Your task to perform on an android device: Set the phone to "Do not disturb". Image 0: 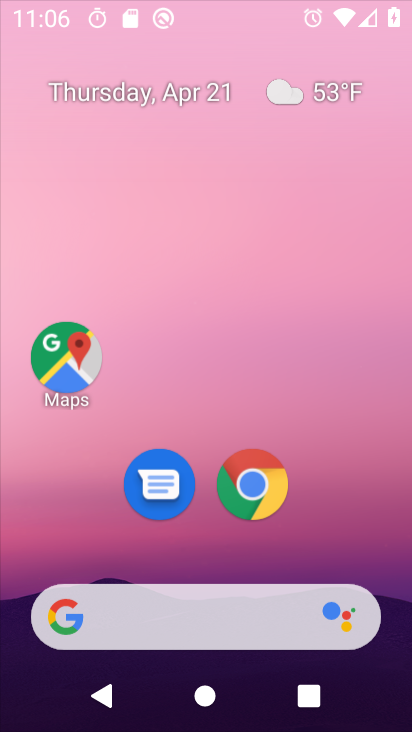
Step 0: click (260, 472)
Your task to perform on an android device: Set the phone to "Do not disturb". Image 1: 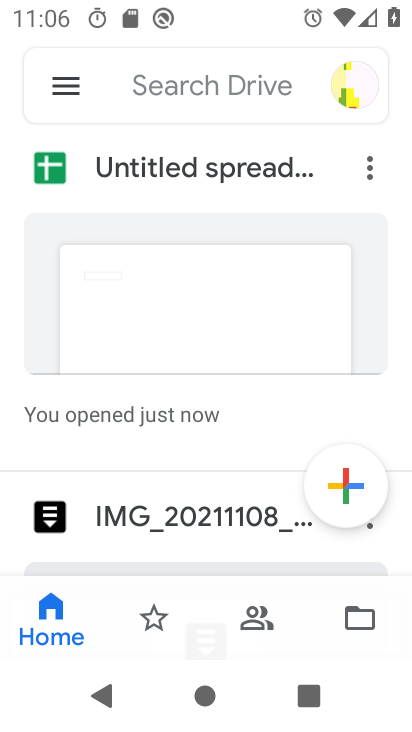
Step 1: press home button
Your task to perform on an android device: Set the phone to "Do not disturb". Image 2: 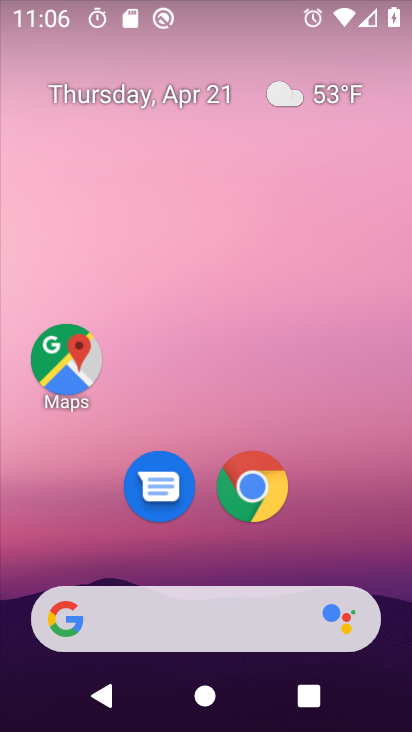
Step 2: click (324, 208)
Your task to perform on an android device: Set the phone to "Do not disturb". Image 3: 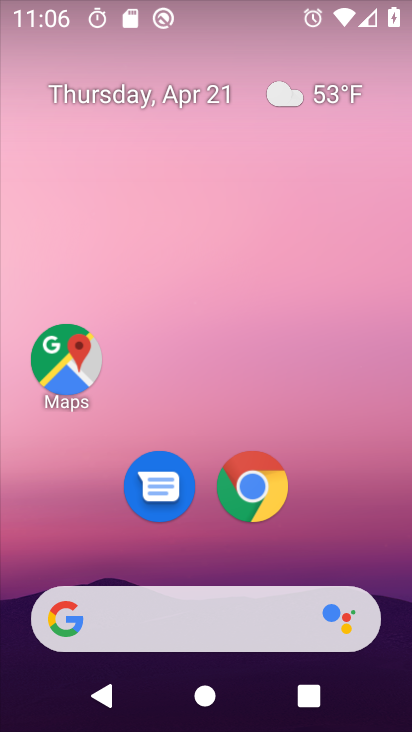
Step 3: drag from (384, 398) to (360, 156)
Your task to perform on an android device: Set the phone to "Do not disturb". Image 4: 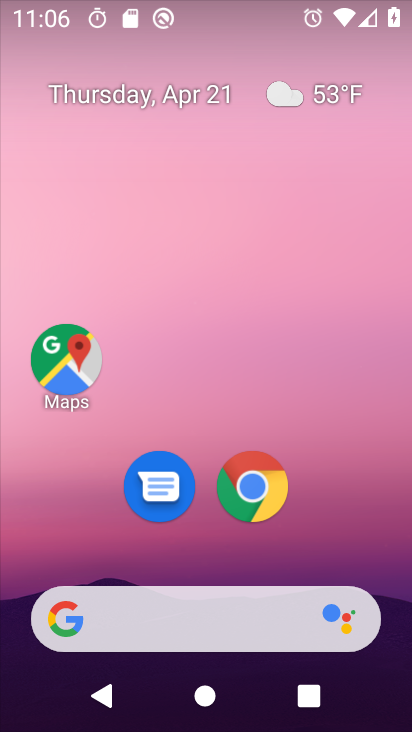
Step 4: drag from (388, 199) to (387, 131)
Your task to perform on an android device: Set the phone to "Do not disturb". Image 5: 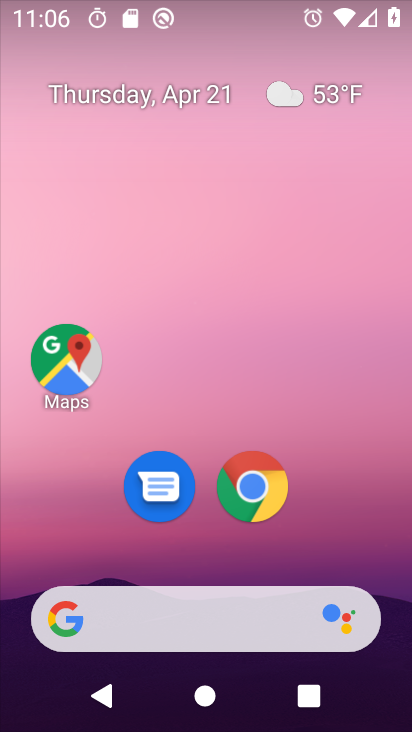
Step 5: drag from (360, 338) to (325, 76)
Your task to perform on an android device: Set the phone to "Do not disturb". Image 6: 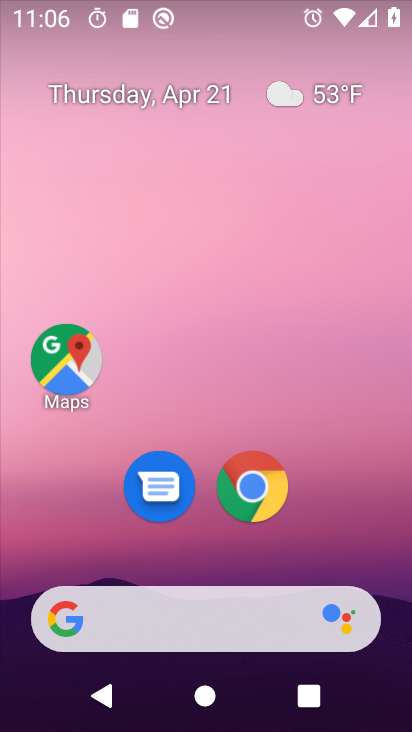
Step 6: click (350, 103)
Your task to perform on an android device: Set the phone to "Do not disturb". Image 7: 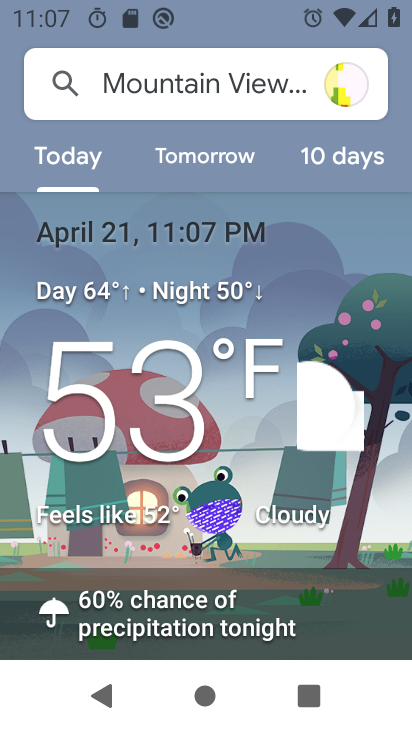
Step 7: press back button
Your task to perform on an android device: Set the phone to "Do not disturb". Image 8: 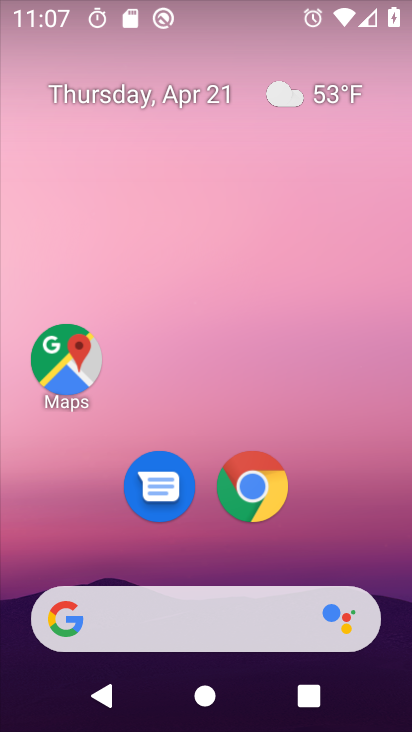
Step 8: drag from (391, 588) to (371, 91)
Your task to perform on an android device: Set the phone to "Do not disturb". Image 9: 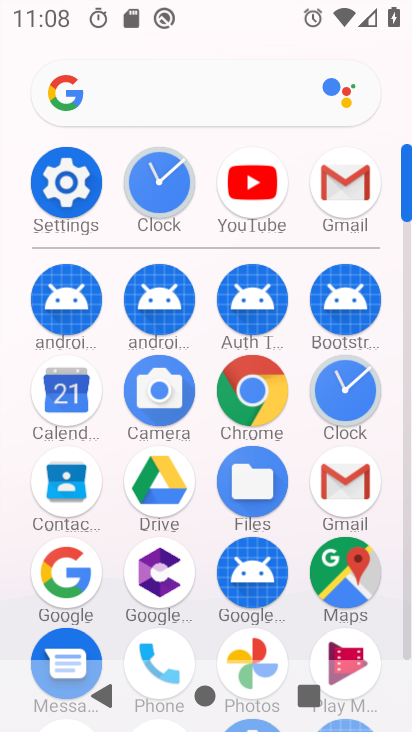
Step 9: click (55, 186)
Your task to perform on an android device: Set the phone to "Do not disturb". Image 10: 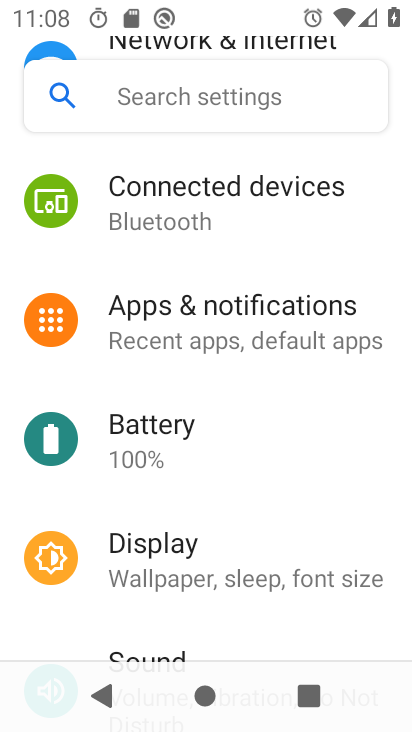
Step 10: drag from (265, 459) to (260, 376)
Your task to perform on an android device: Set the phone to "Do not disturb". Image 11: 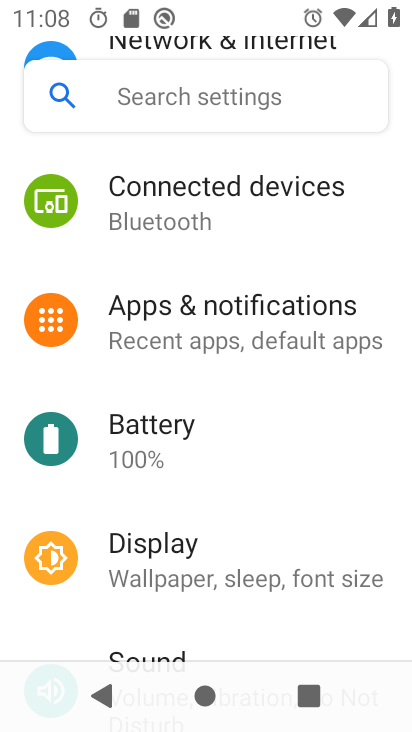
Step 11: drag from (256, 498) to (243, 228)
Your task to perform on an android device: Set the phone to "Do not disturb". Image 12: 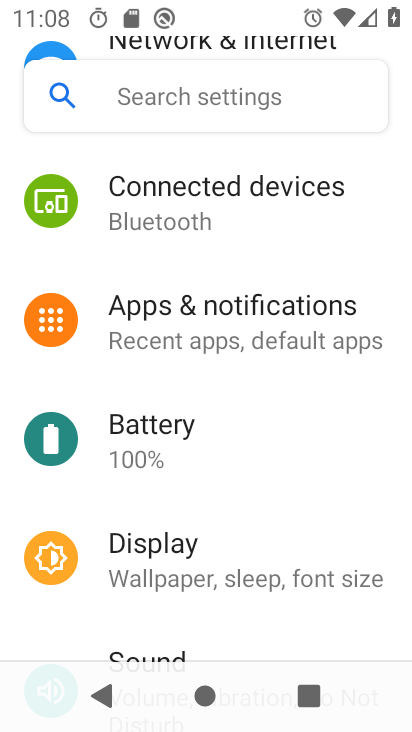
Step 12: drag from (271, 612) to (279, 278)
Your task to perform on an android device: Set the phone to "Do not disturb". Image 13: 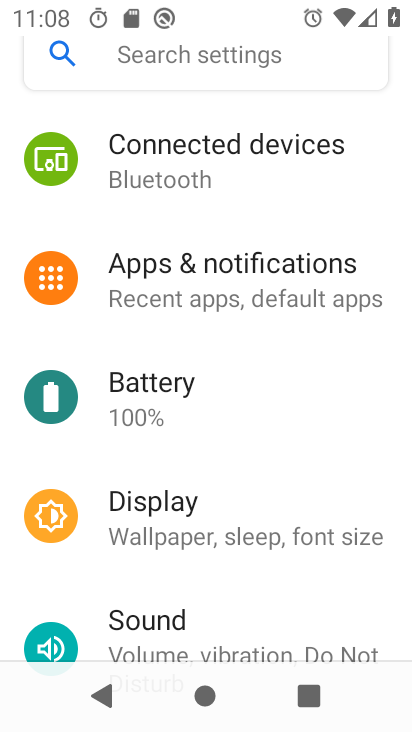
Step 13: click (149, 620)
Your task to perform on an android device: Set the phone to "Do not disturb". Image 14: 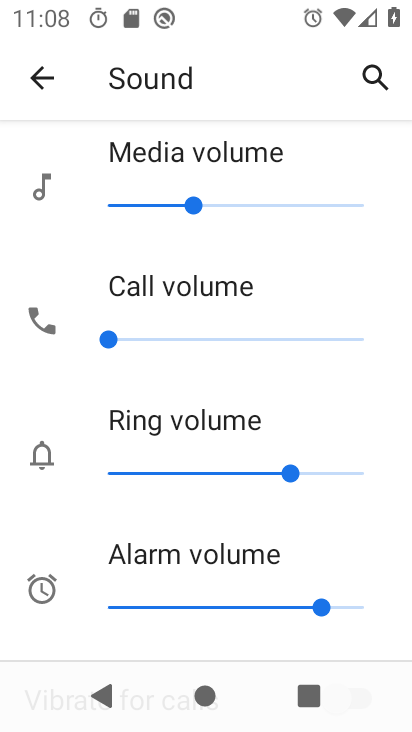
Step 14: drag from (356, 497) to (334, 223)
Your task to perform on an android device: Set the phone to "Do not disturb". Image 15: 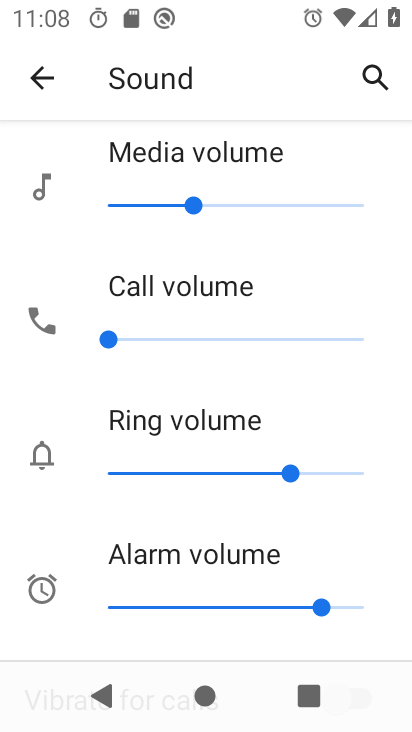
Step 15: drag from (365, 390) to (356, 290)
Your task to perform on an android device: Set the phone to "Do not disturb". Image 16: 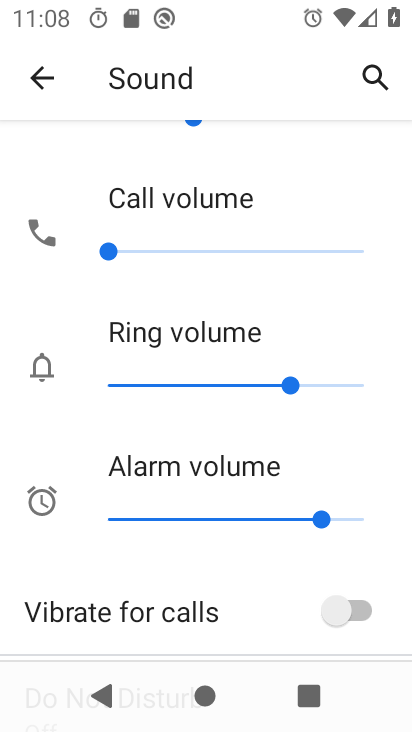
Step 16: drag from (393, 607) to (370, 81)
Your task to perform on an android device: Set the phone to "Do not disturb". Image 17: 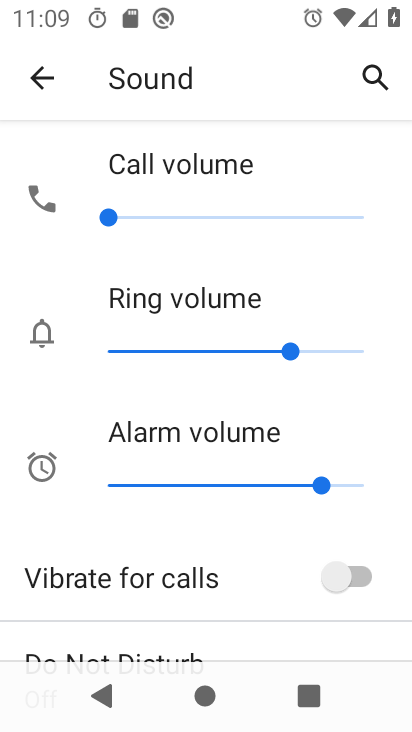
Step 17: drag from (396, 612) to (370, 216)
Your task to perform on an android device: Set the phone to "Do not disturb". Image 18: 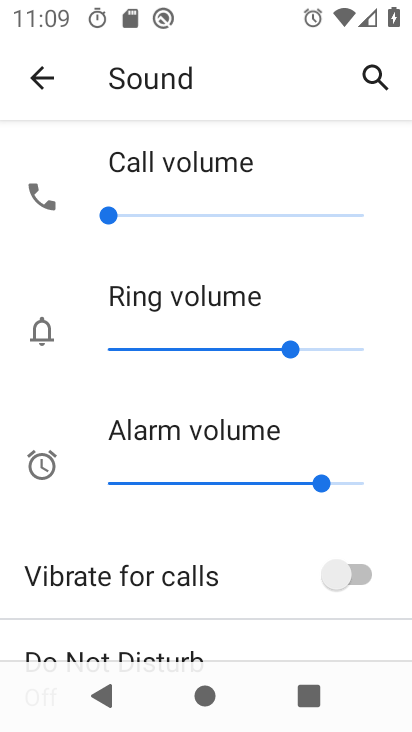
Step 18: drag from (385, 621) to (360, 253)
Your task to perform on an android device: Set the phone to "Do not disturb". Image 19: 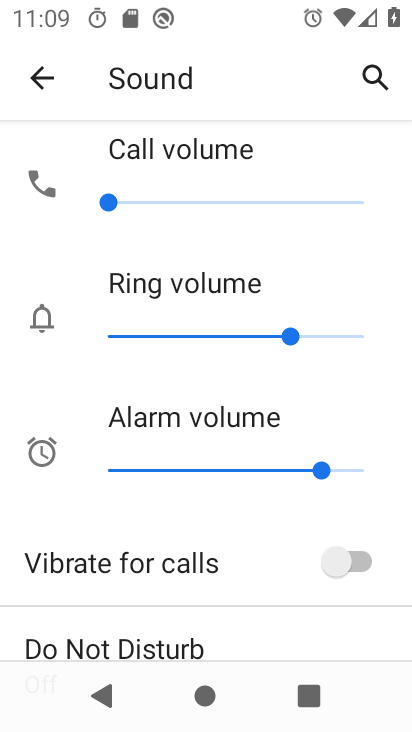
Step 19: drag from (374, 505) to (377, 302)
Your task to perform on an android device: Set the phone to "Do not disturb". Image 20: 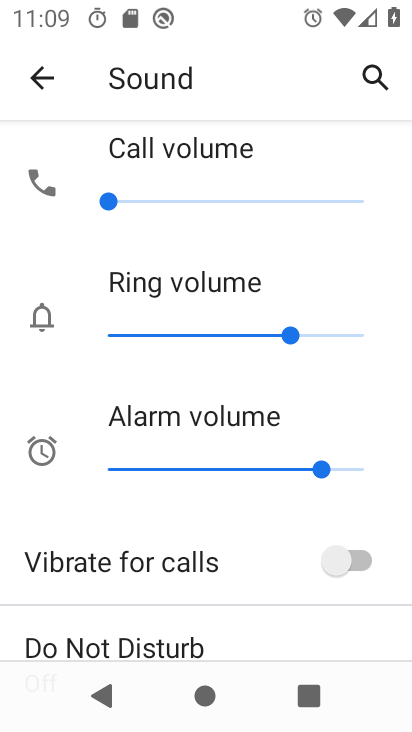
Step 20: drag from (386, 625) to (366, 234)
Your task to perform on an android device: Set the phone to "Do not disturb". Image 21: 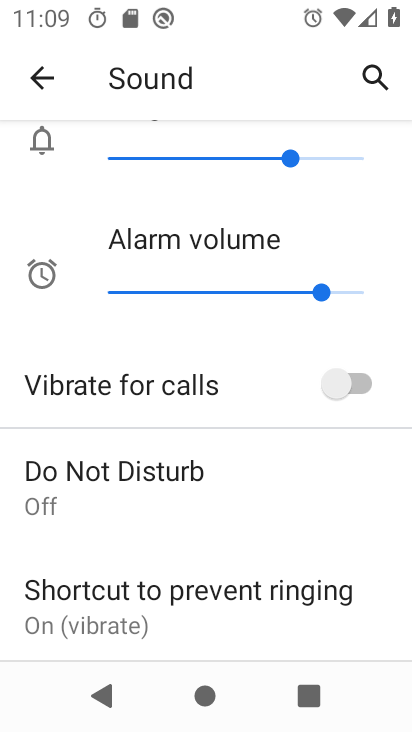
Step 21: click (95, 480)
Your task to perform on an android device: Set the phone to "Do not disturb". Image 22: 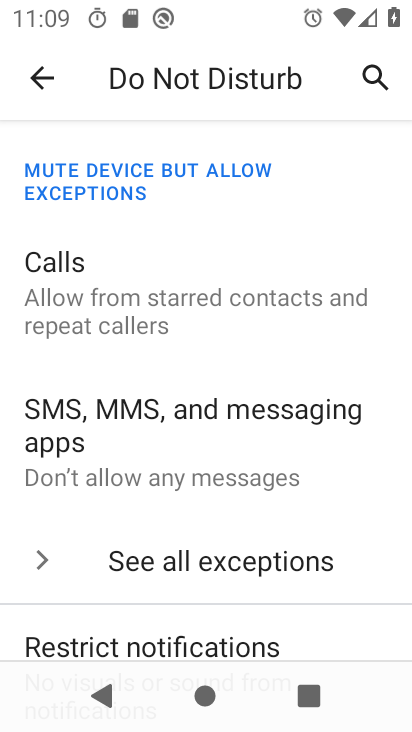
Step 22: drag from (366, 643) to (372, 242)
Your task to perform on an android device: Set the phone to "Do not disturb". Image 23: 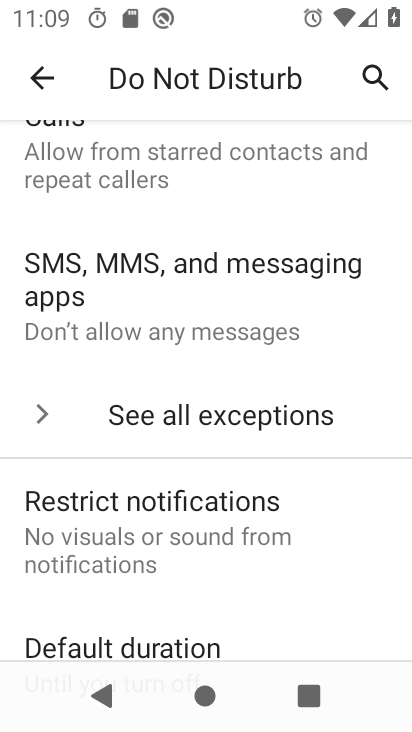
Step 23: drag from (355, 604) to (340, 247)
Your task to perform on an android device: Set the phone to "Do not disturb". Image 24: 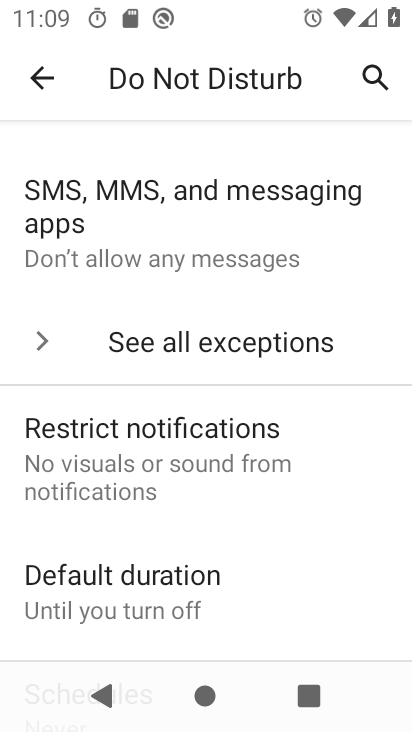
Step 24: drag from (337, 561) to (342, 269)
Your task to perform on an android device: Set the phone to "Do not disturb". Image 25: 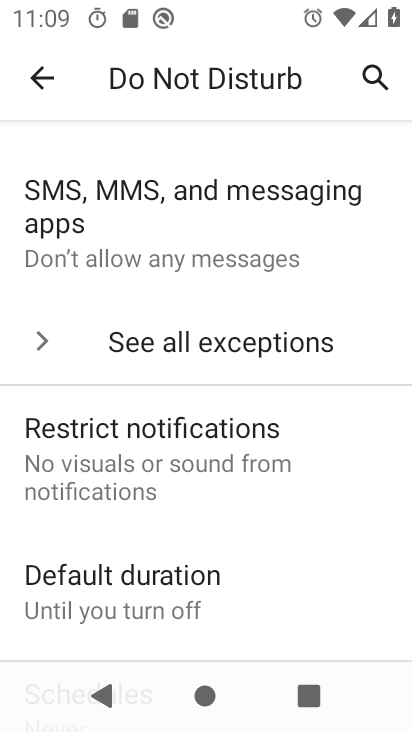
Step 25: drag from (329, 415) to (332, 209)
Your task to perform on an android device: Set the phone to "Do not disturb". Image 26: 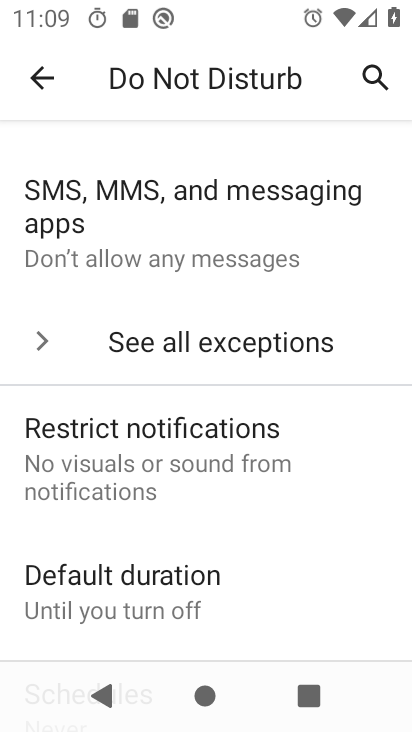
Step 26: drag from (333, 616) to (330, 319)
Your task to perform on an android device: Set the phone to "Do not disturb". Image 27: 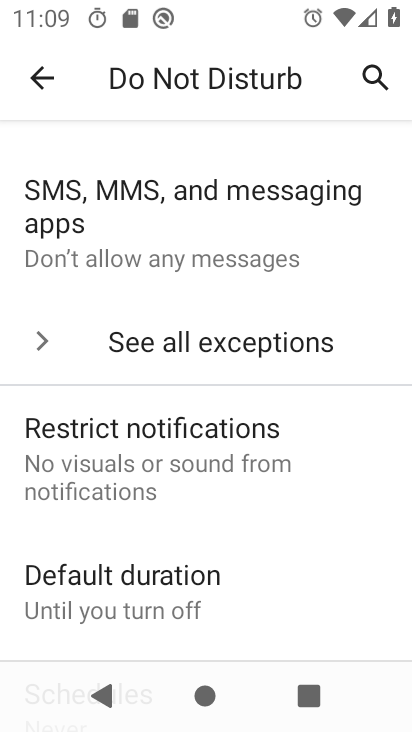
Step 27: drag from (273, 621) to (270, 337)
Your task to perform on an android device: Set the phone to "Do not disturb". Image 28: 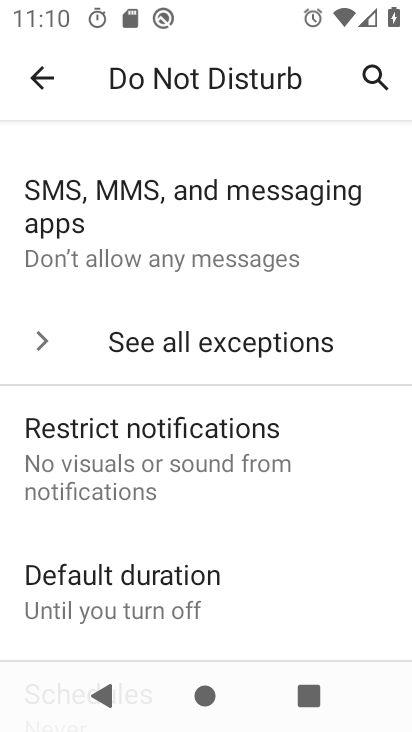
Step 28: drag from (322, 447) to (323, 158)
Your task to perform on an android device: Set the phone to "Do not disturb". Image 29: 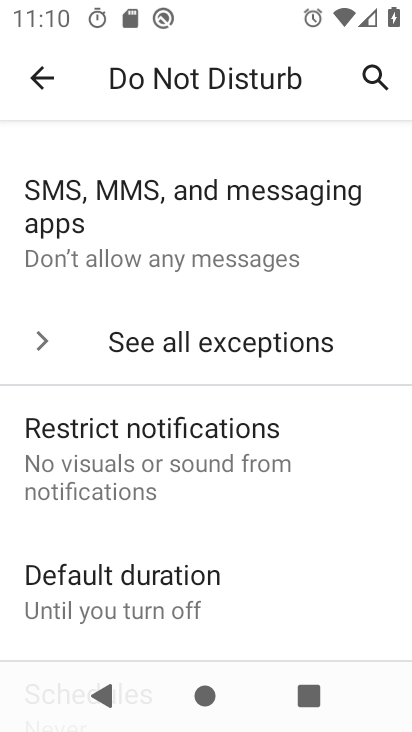
Step 29: drag from (291, 536) to (281, 245)
Your task to perform on an android device: Set the phone to "Do not disturb". Image 30: 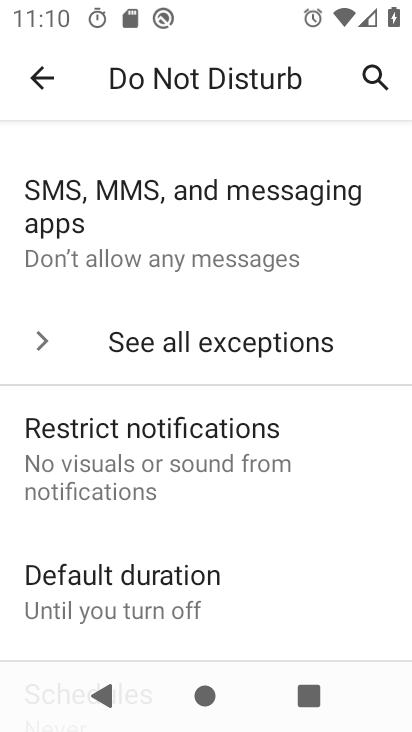
Step 30: drag from (324, 587) to (321, 233)
Your task to perform on an android device: Set the phone to "Do not disturb". Image 31: 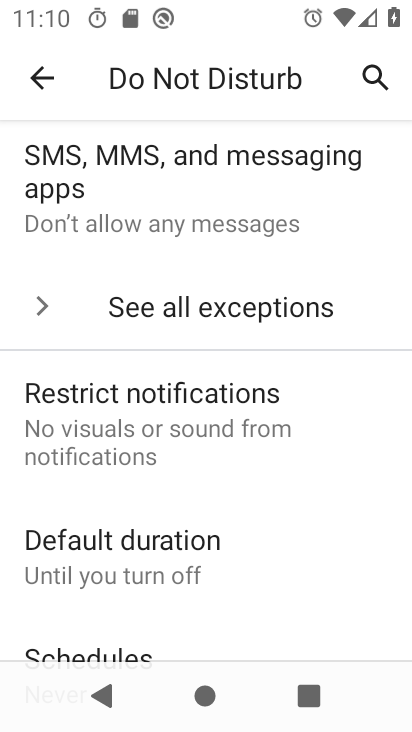
Step 31: drag from (312, 399) to (310, 296)
Your task to perform on an android device: Set the phone to "Do not disturb". Image 32: 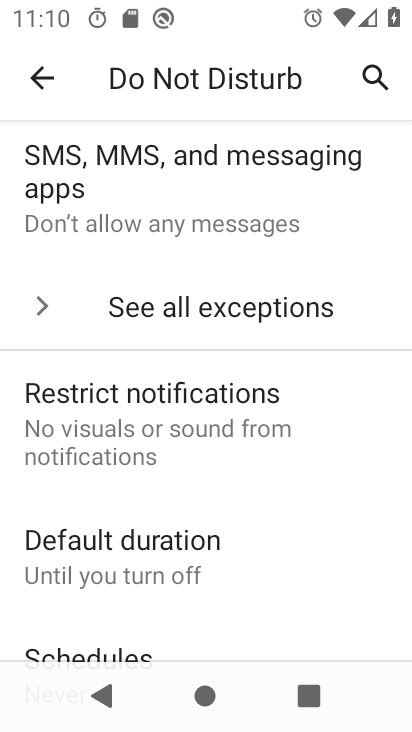
Step 32: drag from (323, 605) to (323, 194)
Your task to perform on an android device: Set the phone to "Do not disturb". Image 33: 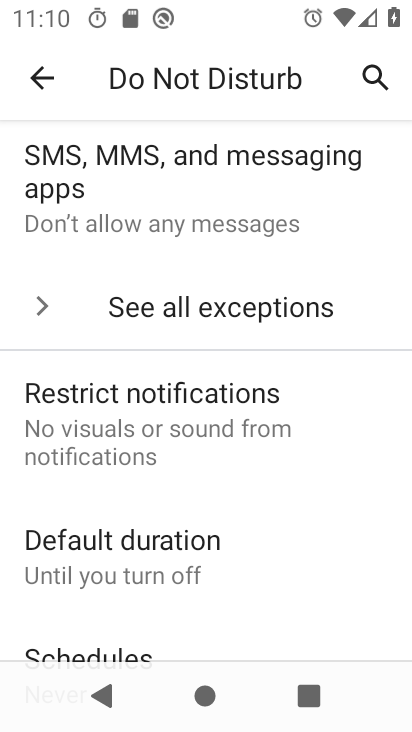
Step 33: drag from (342, 367) to (350, 228)
Your task to perform on an android device: Set the phone to "Do not disturb". Image 34: 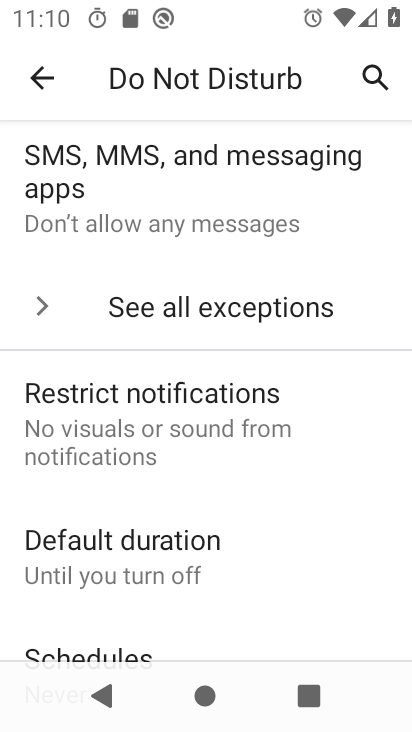
Step 34: drag from (358, 646) to (366, 173)
Your task to perform on an android device: Set the phone to "Do not disturb". Image 35: 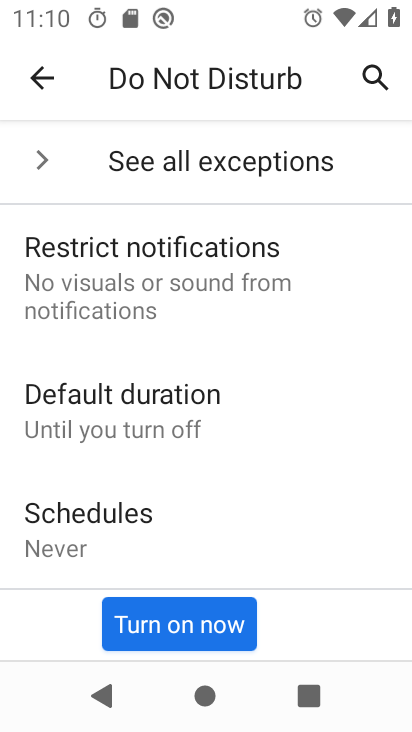
Step 35: click (185, 617)
Your task to perform on an android device: Set the phone to "Do not disturb". Image 36: 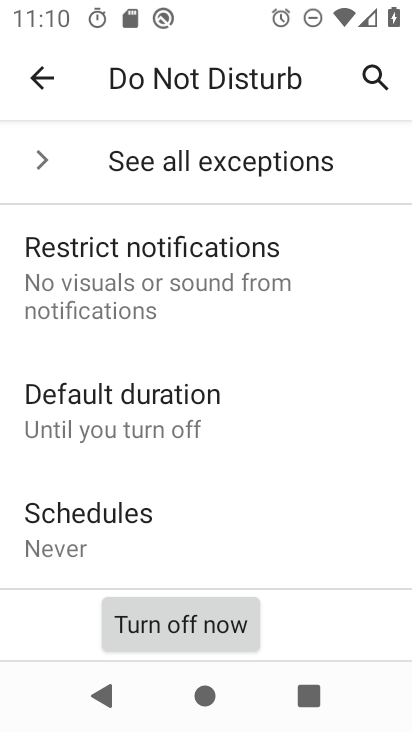
Step 36: task complete